Your task to perform on an android device: toggle location history Image 0: 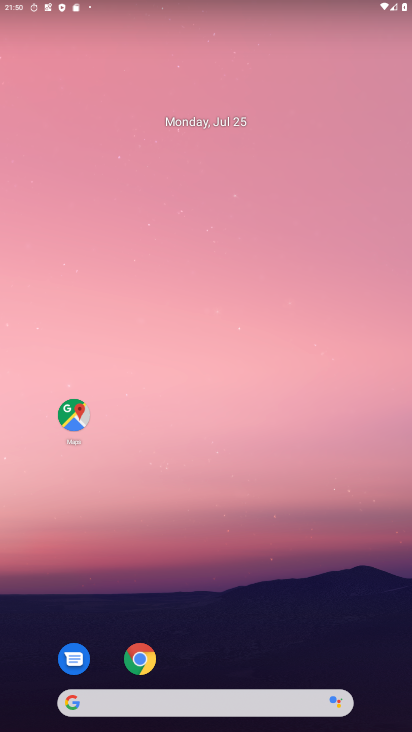
Step 0: drag from (226, 646) to (238, 92)
Your task to perform on an android device: toggle location history Image 1: 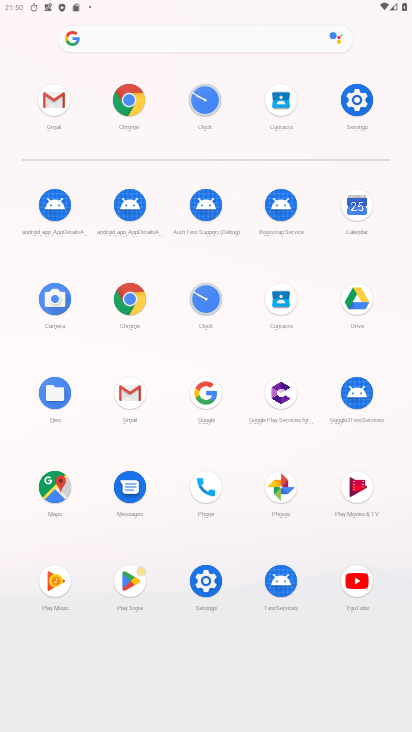
Step 1: click (363, 97)
Your task to perform on an android device: toggle location history Image 2: 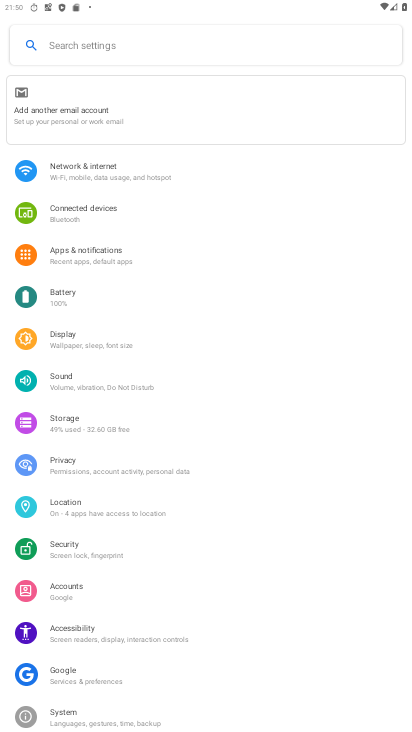
Step 2: click (105, 511)
Your task to perform on an android device: toggle location history Image 3: 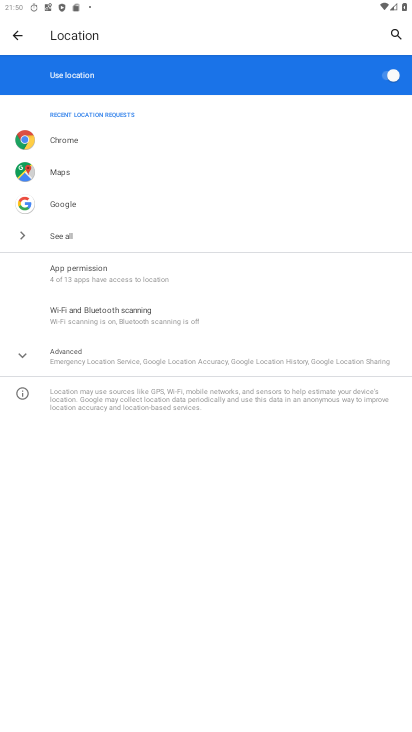
Step 3: click (90, 347)
Your task to perform on an android device: toggle location history Image 4: 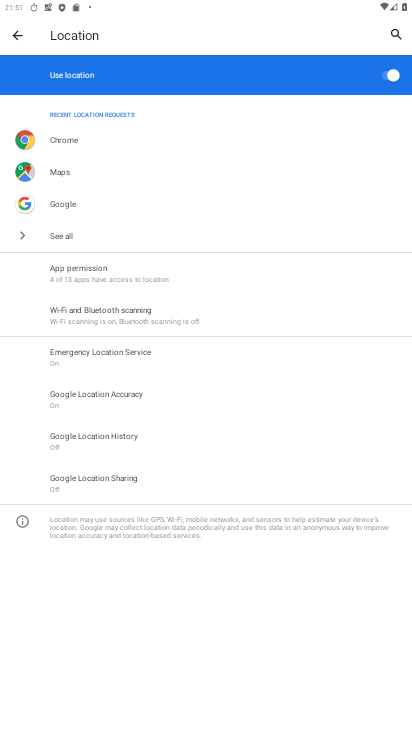
Step 4: click (100, 438)
Your task to perform on an android device: toggle location history Image 5: 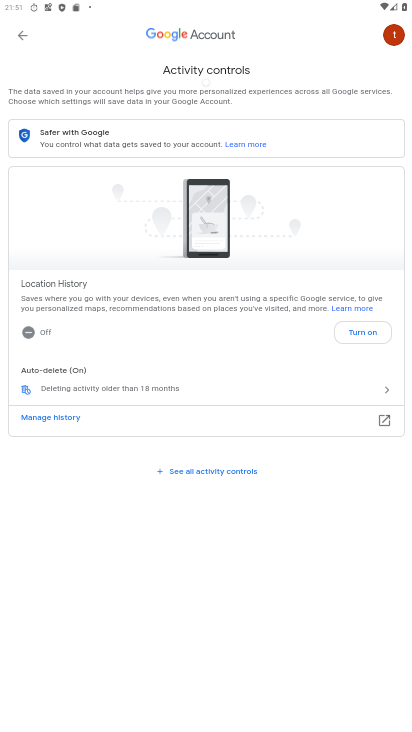
Step 5: click (355, 332)
Your task to perform on an android device: toggle location history Image 6: 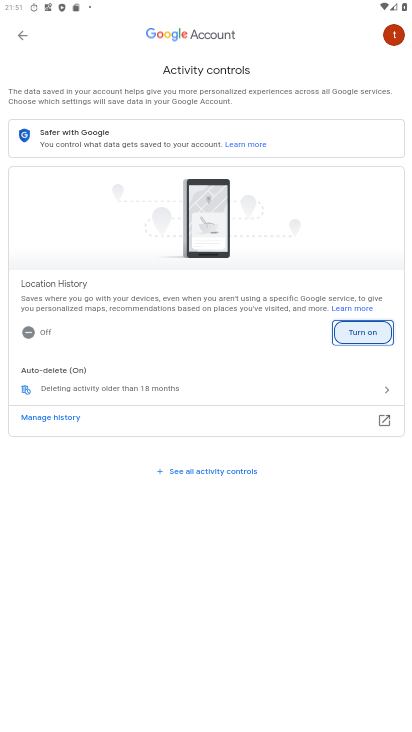
Step 6: click (355, 332)
Your task to perform on an android device: toggle location history Image 7: 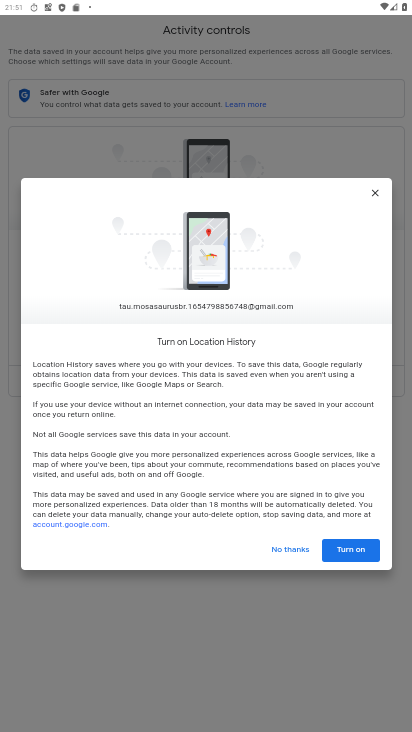
Step 7: click (341, 540)
Your task to perform on an android device: toggle location history Image 8: 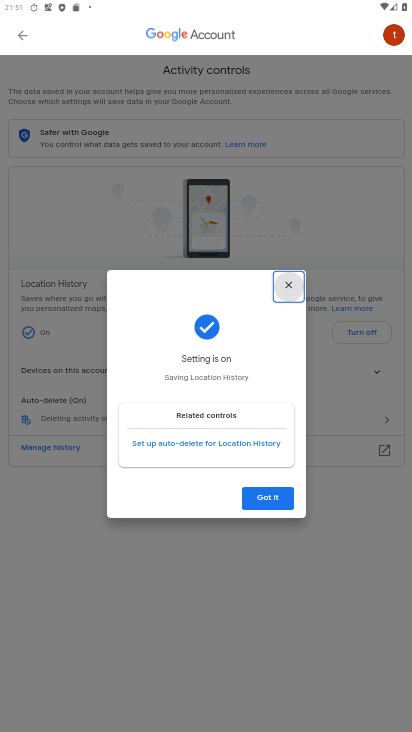
Step 8: click (280, 504)
Your task to perform on an android device: toggle location history Image 9: 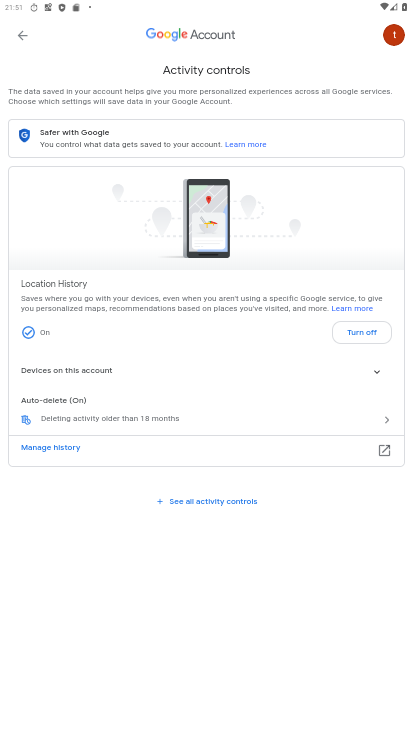
Step 9: task complete